Your task to perform on an android device: Open Google Chrome Image 0: 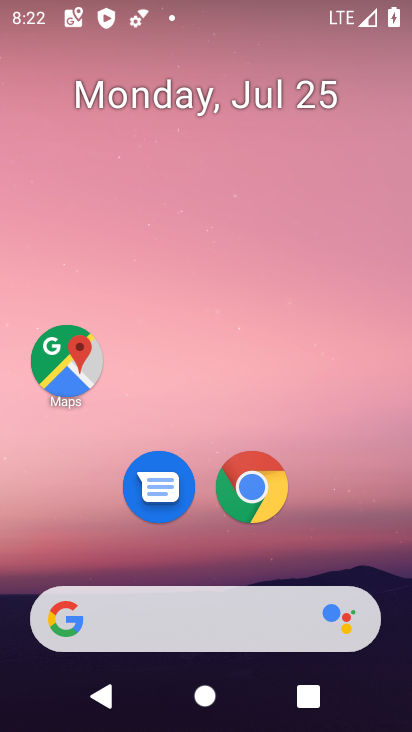
Step 0: click (262, 483)
Your task to perform on an android device: Open Google Chrome Image 1: 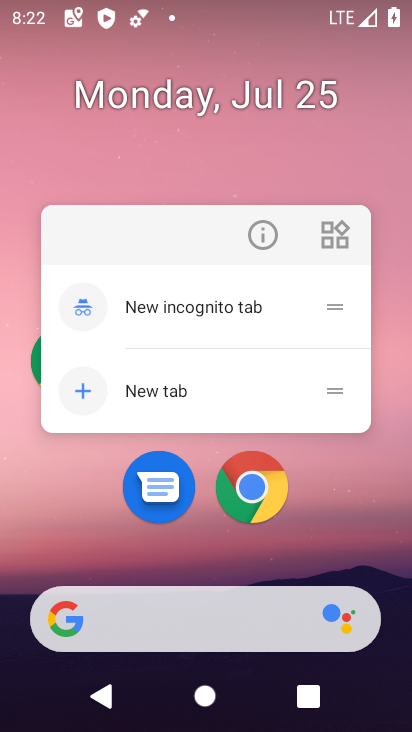
Step 1: click (253, 495)
Your task to perform on an android device: Open Google Chrome Image 2: 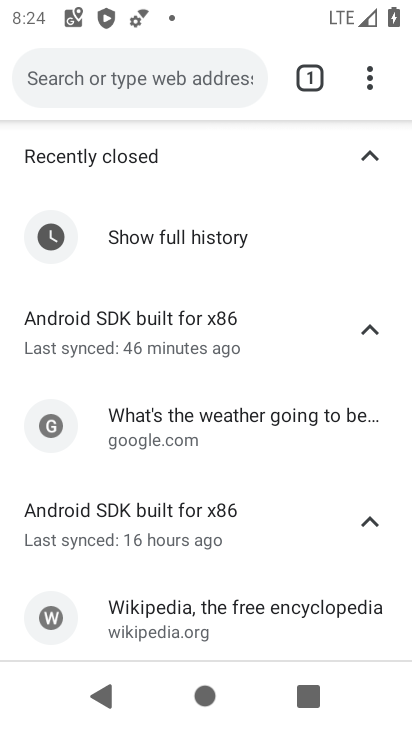
Step 2: task complete